Your task to perform on an android device: change timer sound Image 0: 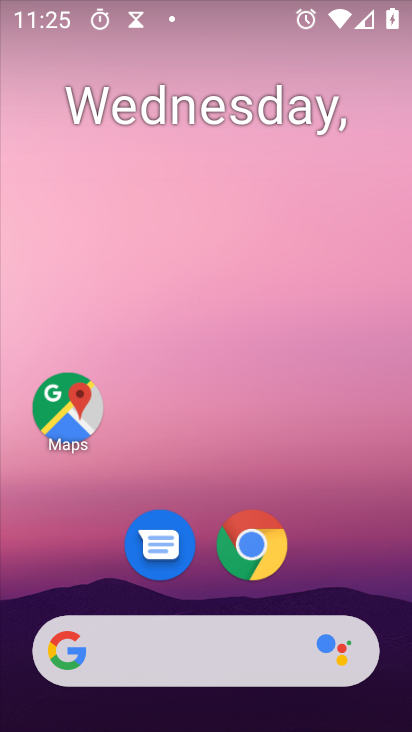
Step 0: press home button
Your task to perform on an android device: change timer sound Image 1: 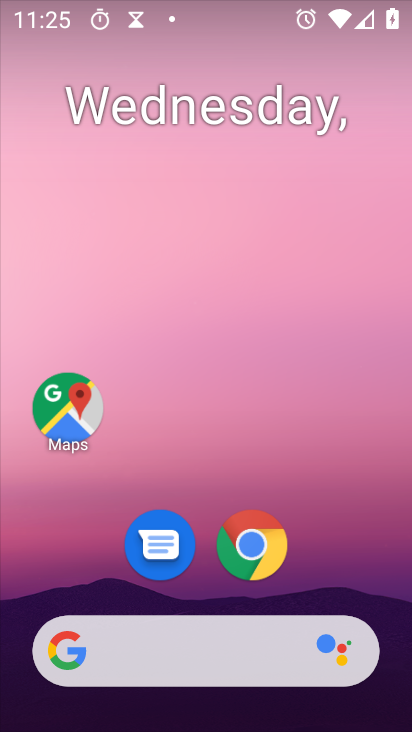
Step 1: drag from (160, 655) to (342, 147)
Your task to perform on an android device: change timer sound Image 2: 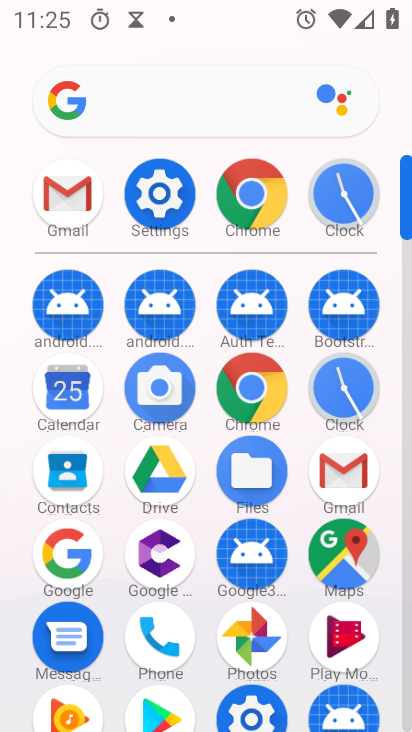
Step 2: click (344, 391)
Your task to perform on an android device: change timer sound Image 3: 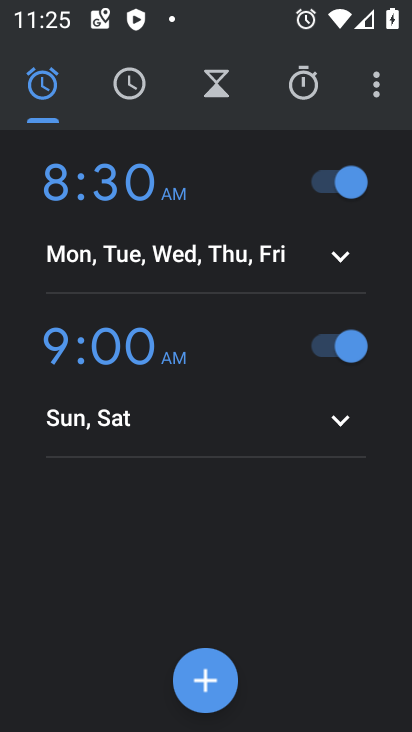
Step 3: click (371, 83)
Your task to perform on an android device: change timer sound Image 4: 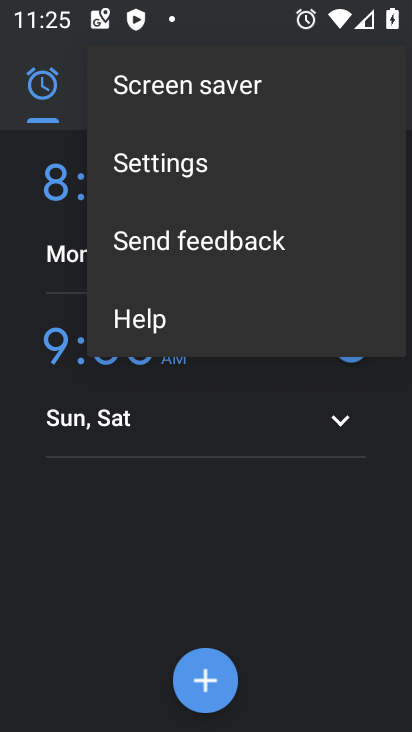
Step 4: click (186, 168)
Your task to perform on an android device: change timer sound Image 5: 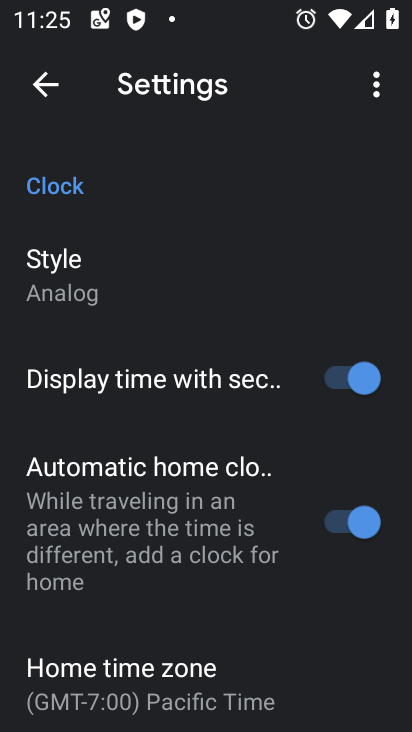
Step 5: drag from (201, 637) to (266, 67)
Your task to perform on an android device: change timer sound Image 6: 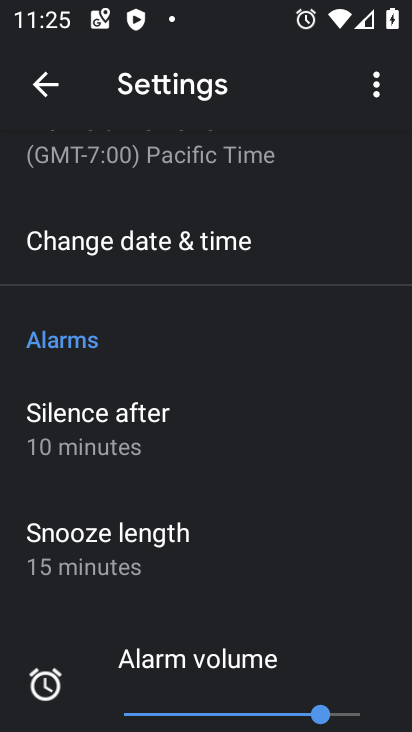
Step 6: drag from (229, 559) to (308, 206)
Your task to perform on an android device: change timer sound Image 7: 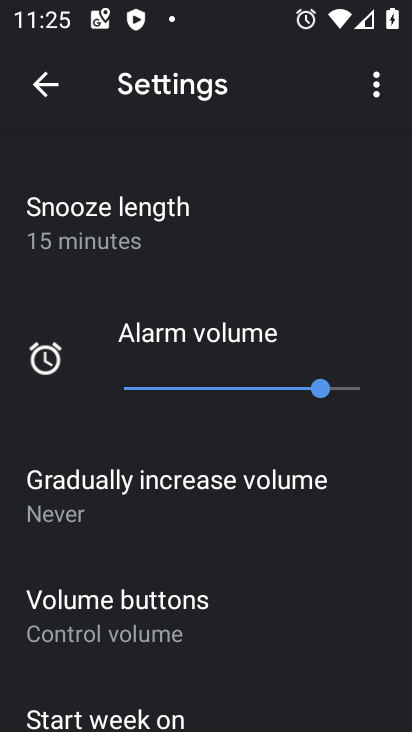
Step 7: drag from (238, 574) to (311, 204)
Your task to perform on an android device: change timer sound Image 8: 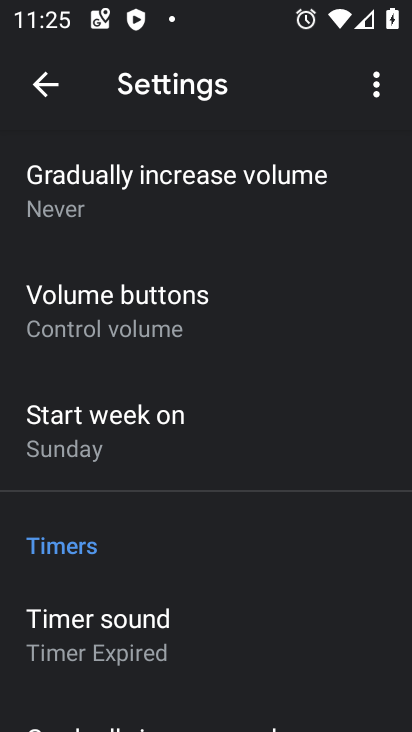
Step 8: click (153, 636)
Your task to perform on an android device: change timer sound Image 9: 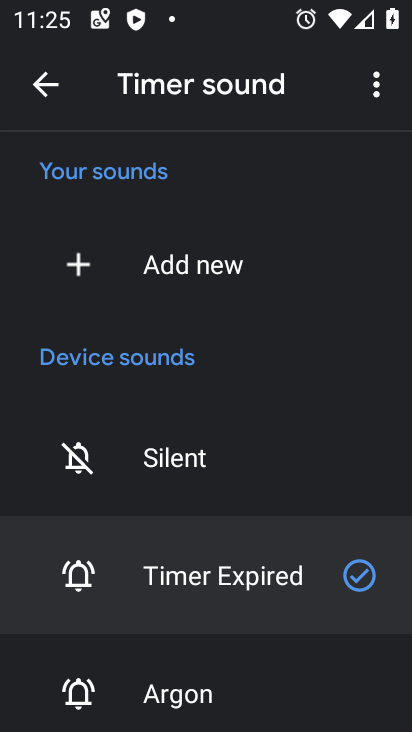
Step 9: drag from (164, 506) to (282, 201)
Your task to perform on an android device: change timer sound Image 10: 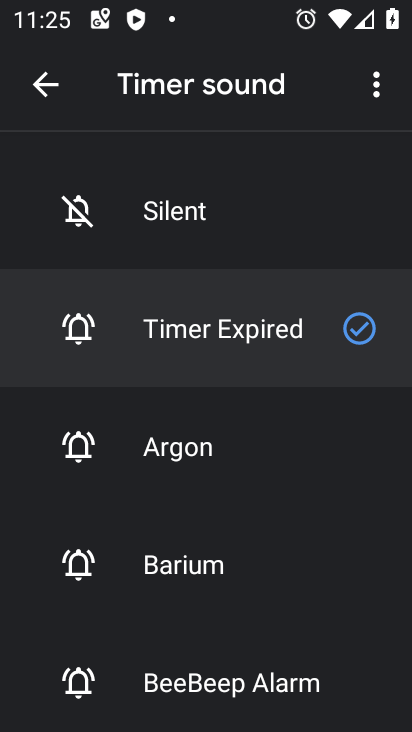
Step 10: click (180, 464)
Your task to perform on an android device: change timer sound Image 11: 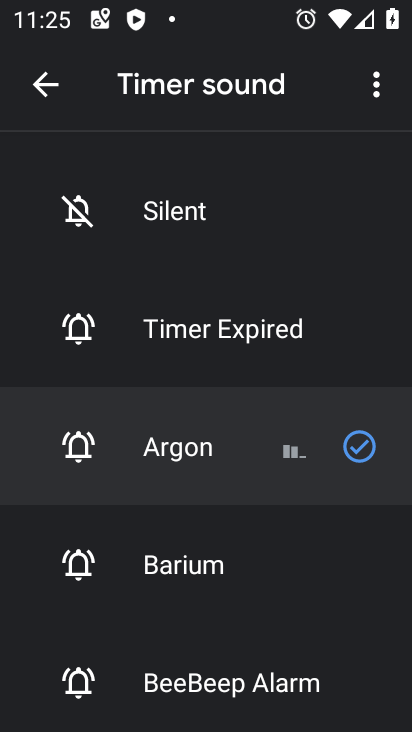
Step 11: task complete